Your task to perform on an android device: Go to settings Image 0: 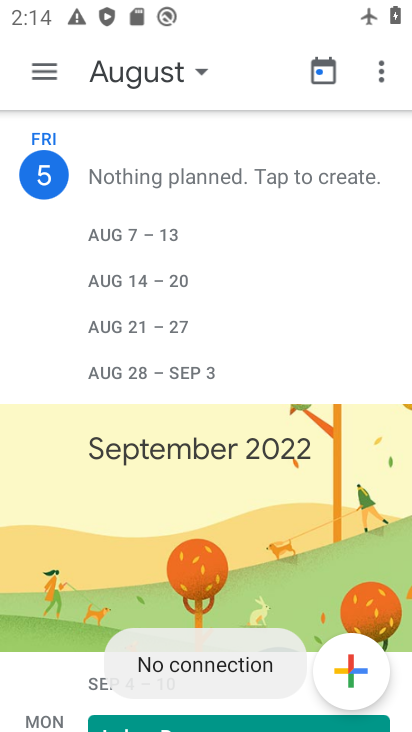
Step 0: press back button
Your task to perform on an android device: Go to settings Image 1: 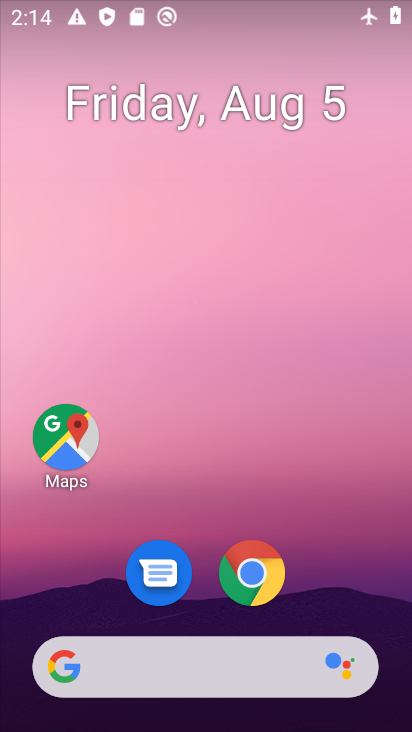
Step 1: drag from (355, 619) to (273, 24)
Your task to perform on an android device: Go to settings Image 2: 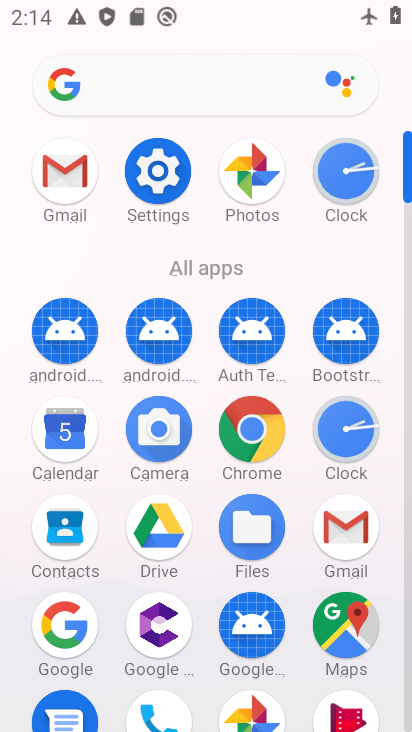
Step 2: click (174, 189)
Your task to perform on an android device: Go to settings Image 3: 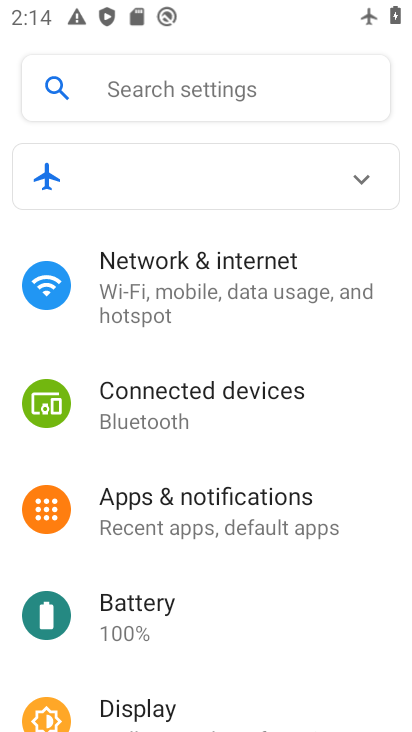
Step 3: task complete